Your task to perform on an android device: Open the stopwatch Image 0: 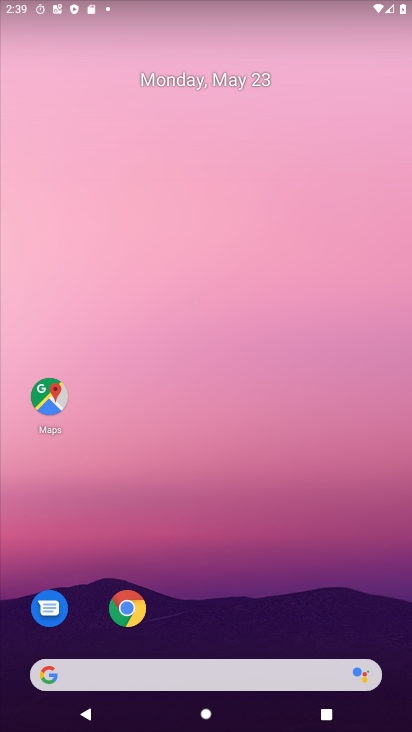
Step 0: drag from (202, 631) to (254, 82)
Your task to perform on an android device: Open the stopwatch Image 1: 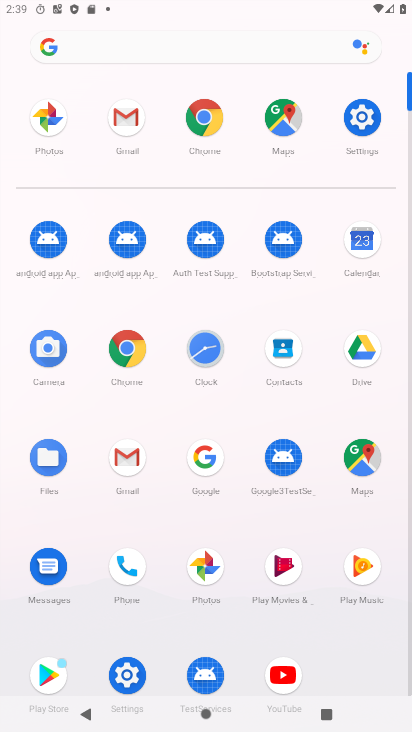
Step 1: click (218, 352)
Your task to perform on an android device: Open the stopwatch Image 2: 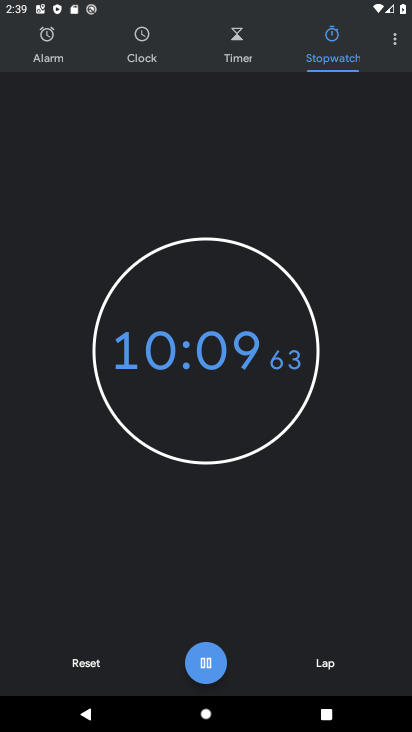
Step 2: click (90, 662)
Your task to perform on an android device: Open the stopwatch Image 3: 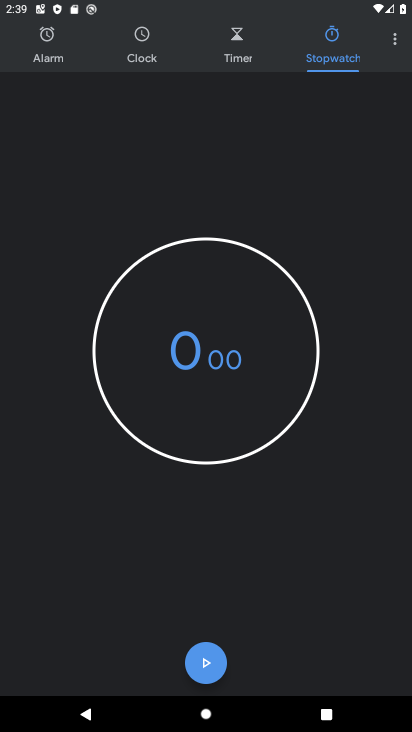
Step 3: click (199, 666)
Your task to perform on an android device: Open the stopwatch Image 4: 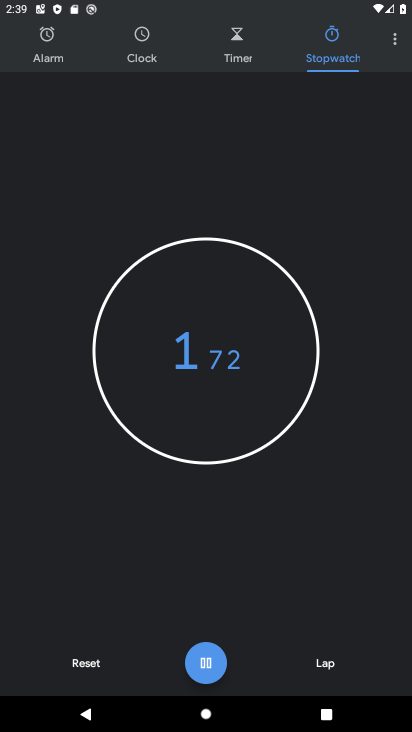
Step 4: task complete